Your task to perform on an android device: turn off location Image 0: 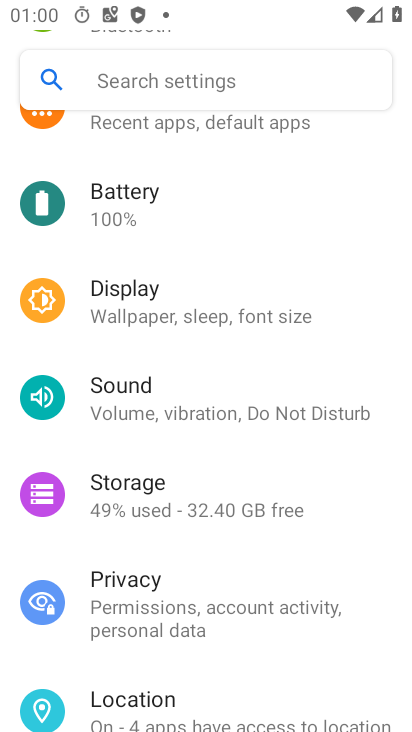
Step 0: click (141, 696)
Your task to perform on an android device: turn off location Image 1: 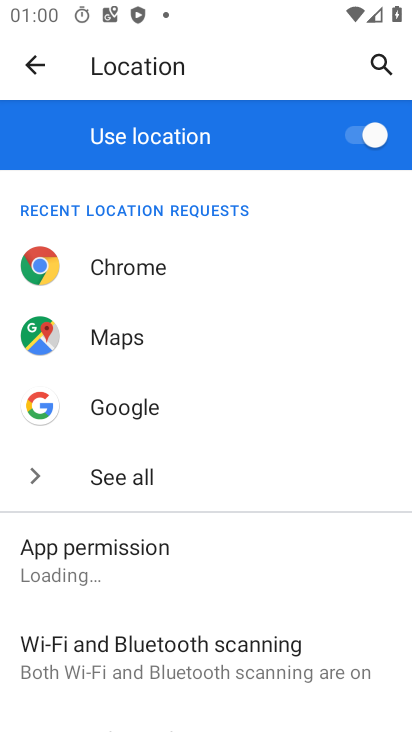
Step 1: click (351, 134)
Your task to perform on an android device: turn off location Image 2: 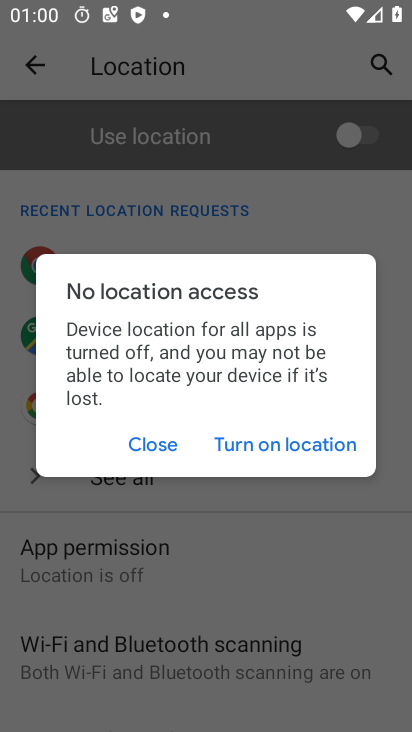
Step 2: click (153, 436)
Your task to perform on an android device: turn off location Image 3: 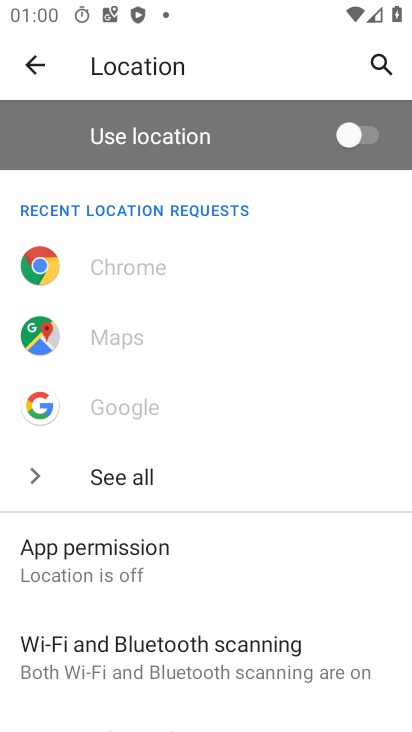
Step 3: task complete